Your task to perform on an android device: What's the news in Ecuador? Image 0: 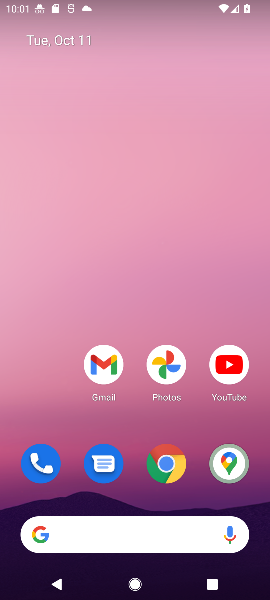
Step 0: drag from (107, 520) to (160, 139)
Your task to perform on an android device: What's the news in Ecuador? Image 1: 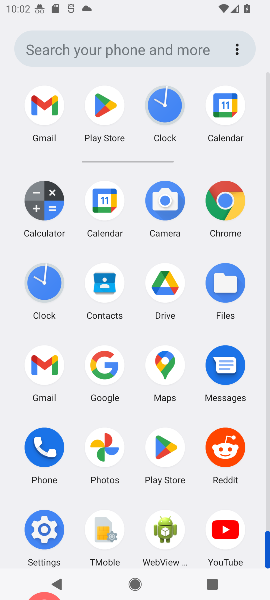
Step 1: click (102, 353)
Your task to perform on an android device: What's the news in Ecuador? Image 2: 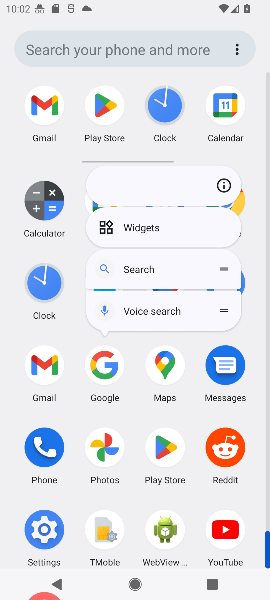
Step 2: click (99, 359)
Your task to perform on an android device: What's the news in Ecuador? Image 3: 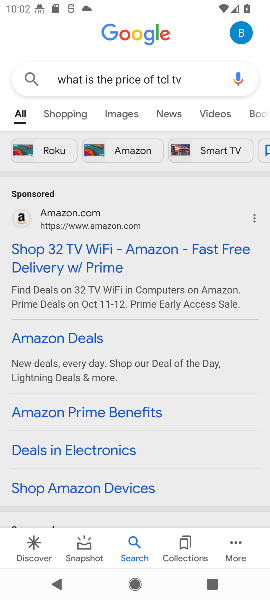
Step 3: click (163, 75)
Your task to perform on an android device: What's the news in Ecuador? Image 4: 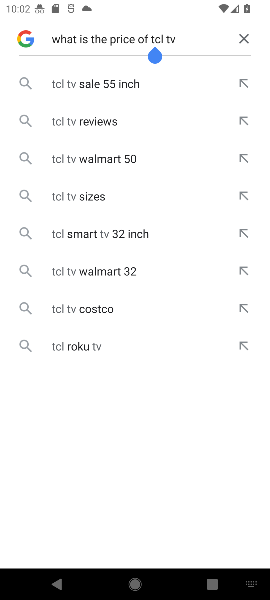
Step 4: click (241, 41)
Your task to perform on an android device: What's the news in Ecuador? Image 5: 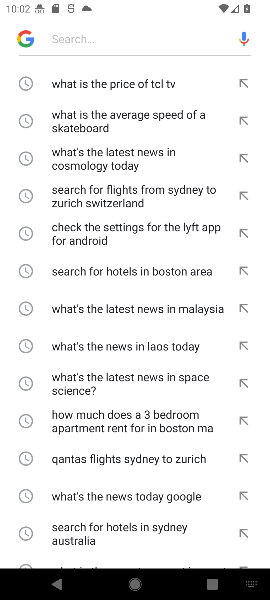
Step 5: click (133, 39)
Your task to perform on an android device: What's the news in Ecuador? Image 6: 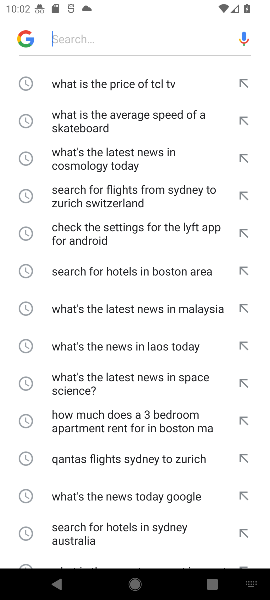
Step 6: type "What's the news in Ecuador? "
Your task to perform on an android device: What's the news in Ecuador? Image 7: 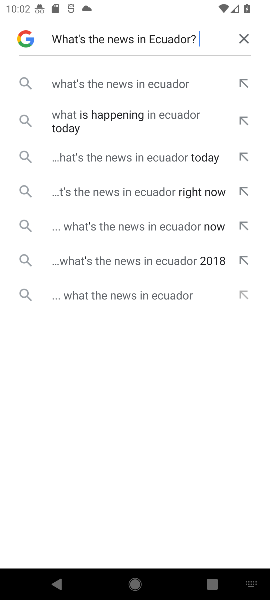
Step 7: click (126, 83)
Your task to perform on an android device: What's the news in Ecuador? Image 8: 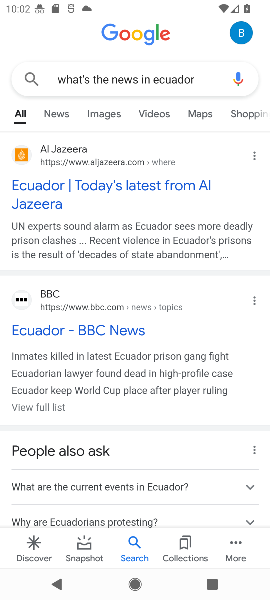
Step 8: click (48, 183)
Your task to perform on an android device: What's the news in Ecuador? Image 9: 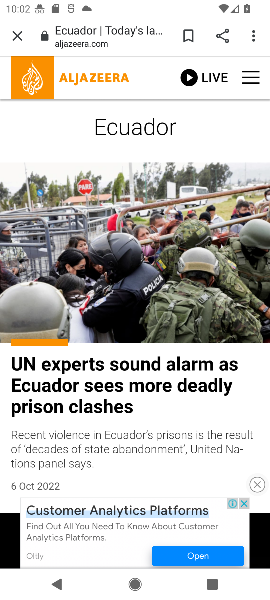
Step 9: drag from (124, 498) to (124, 199)
Your task to perform on an android device: What's the news in Ecuador? Image 10: 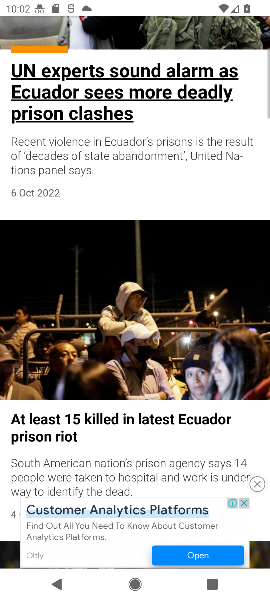
Step 10: click (241, 501)
Your task to perform on an android device: What's the news in Ecuador? Image 11: 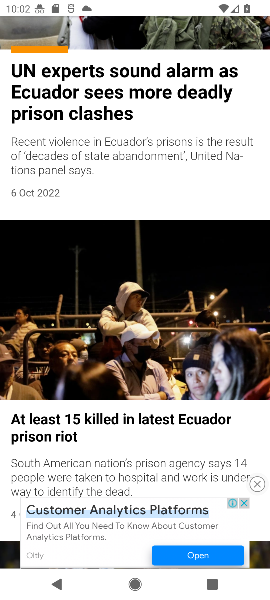
Step 11: click (260, 482)
Your task to perform on an android device: What's the news in Ecuador? Image 12: 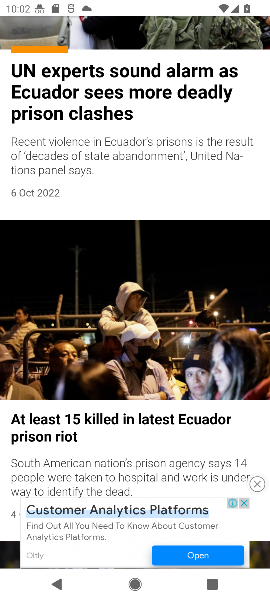
Step 12: click (255, 484)
Your task to perform on an android device: What's the news in Ecuador? Image 13: 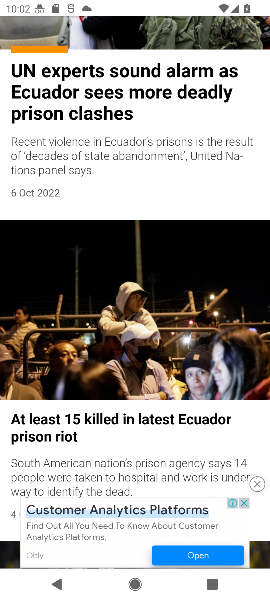
Step 13: task complete